Your task to perform on an android device: choose inbox layout in the gmail app Image 0: 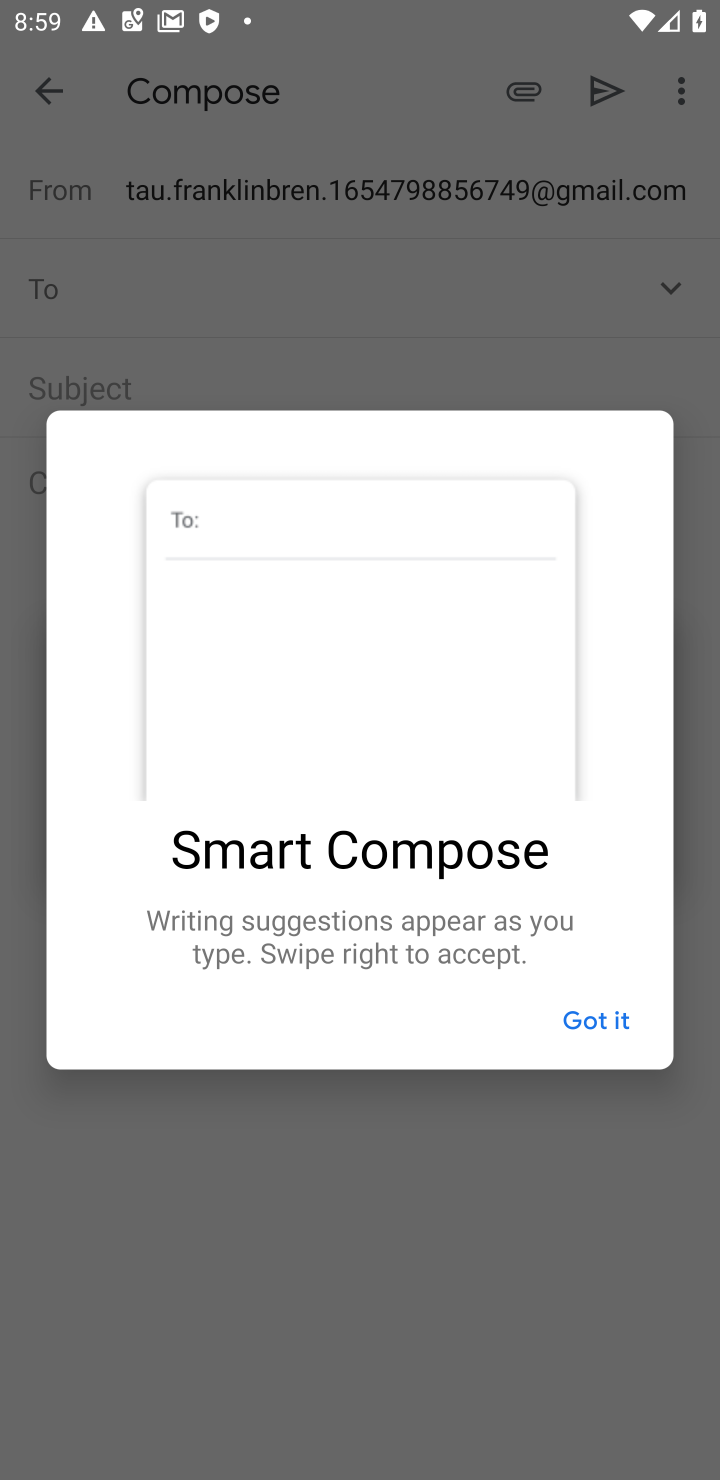
Step 0: press home button
Your task to perform on an android device: choose inbox layout in the gmail app Image 1: 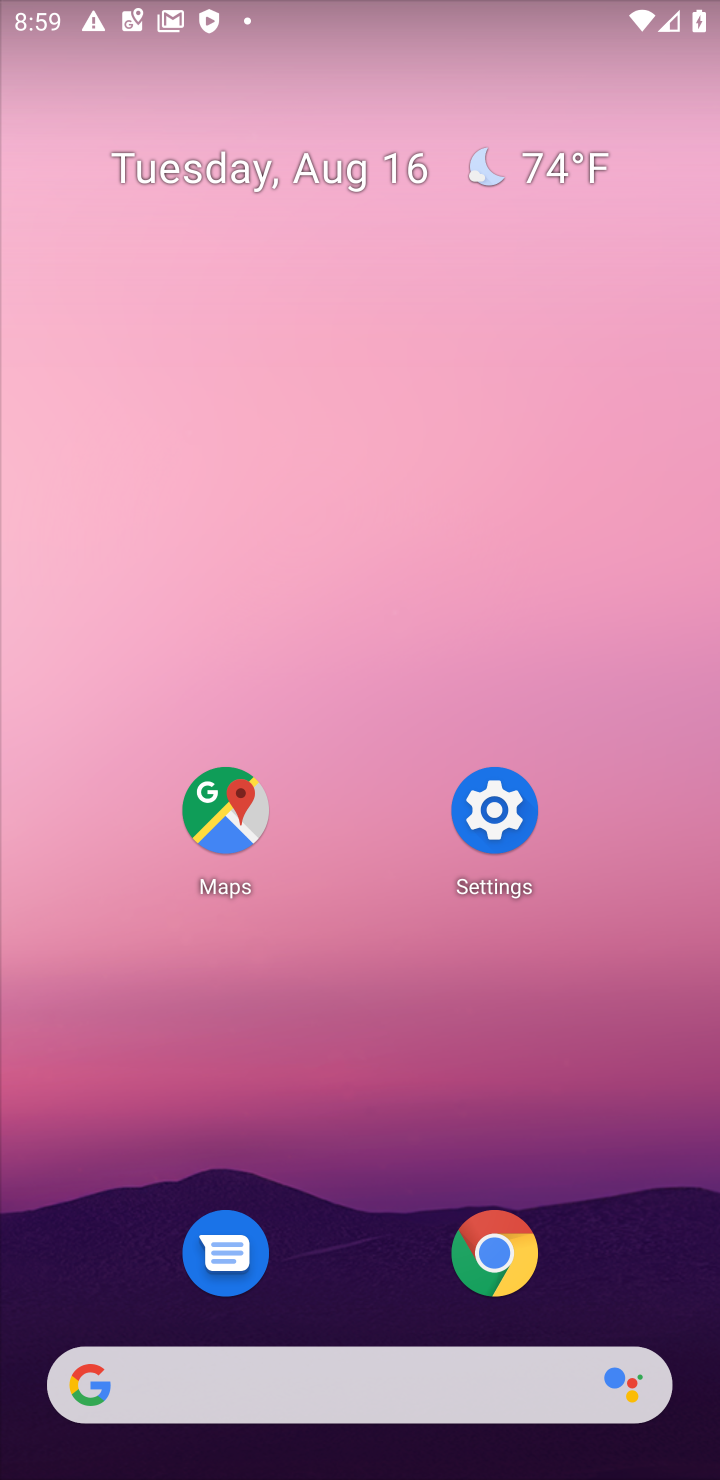
Step 1: drag from (398, 1253) to (576, 301)
Your task to perform on an android device: choose inbox layout in the gmail app Image 2: 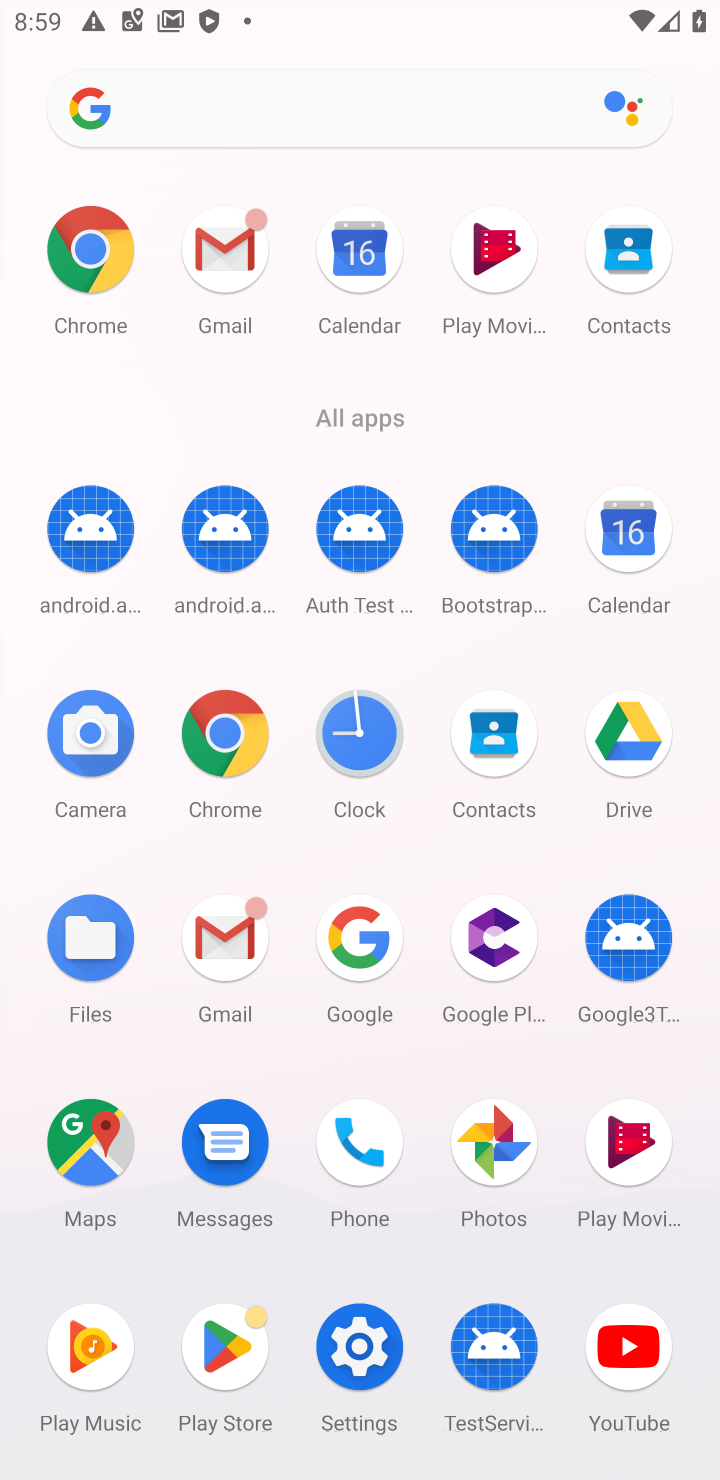
Step 2: click (216, 255)
Your task to perform on an android device: choose inbox layout in the gmail app Image 3: 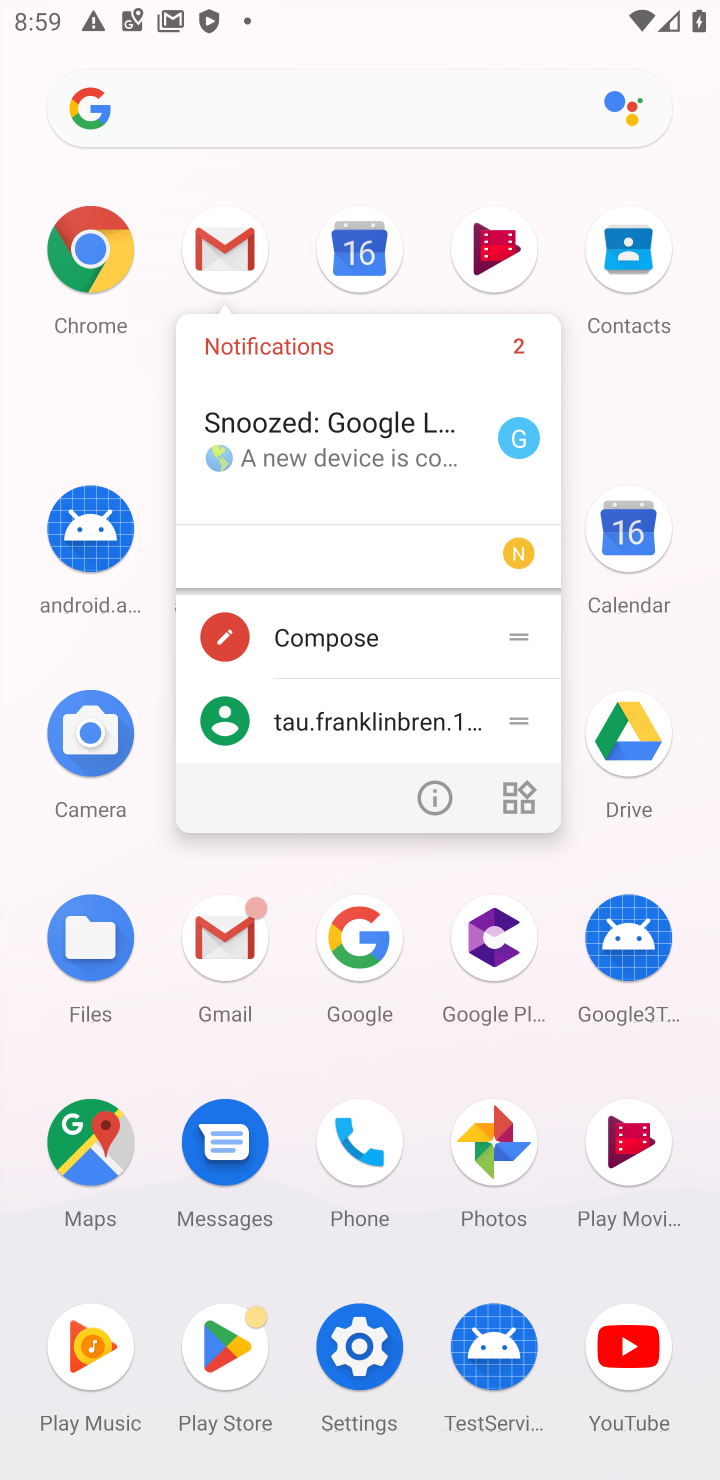
Step 3: click (216, 255)
Your task to perform on an android device: choose inbox layout in the gmail app Image 4: 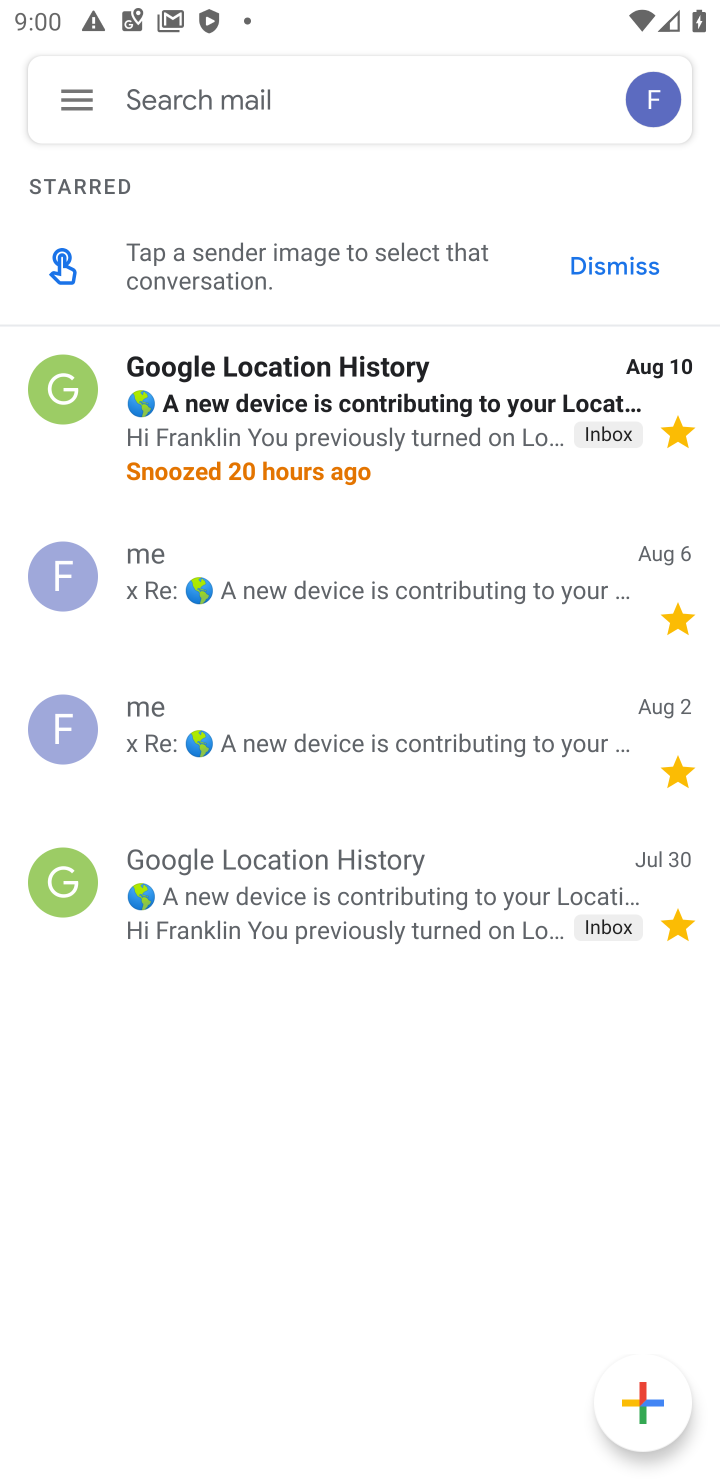
Step 4: click (80, 83)
Your task to perform on an android device: choose inbox layout in the gmail app Image 5: 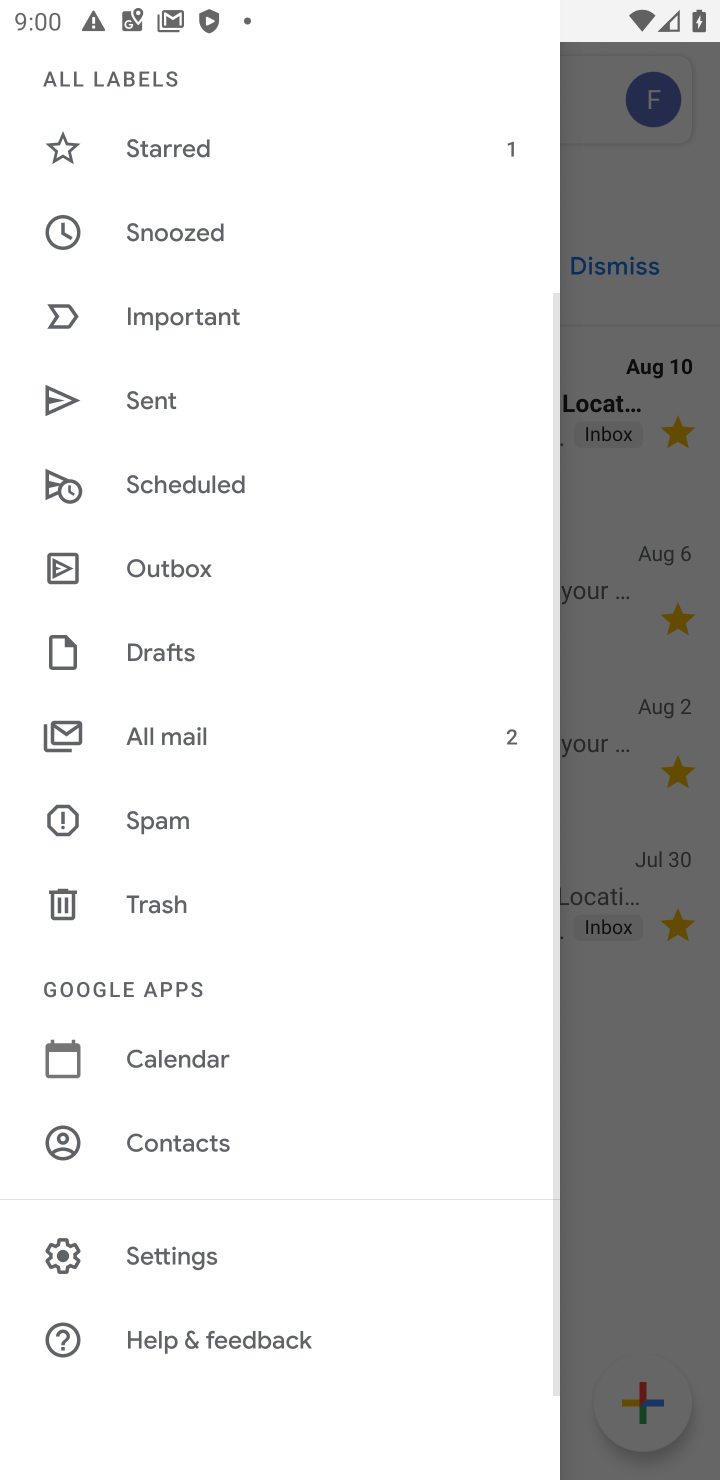
Step 5: click (220, 1260)
Your task to perform on an android device: choose inbox layout in the gmail app Image 6: 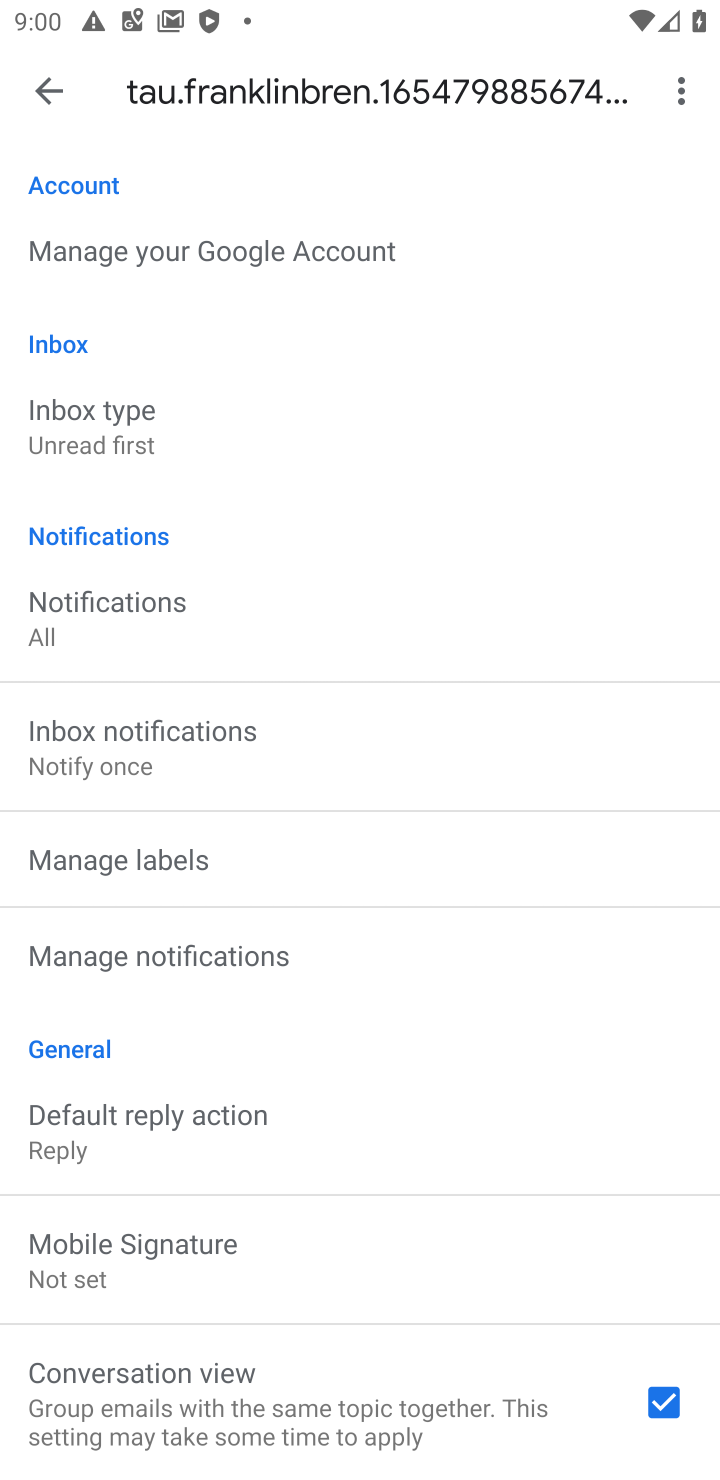
Step 6: click (129, 436)
Your task to perform on an android device: choose inbox layout in the gmail app Image 7: 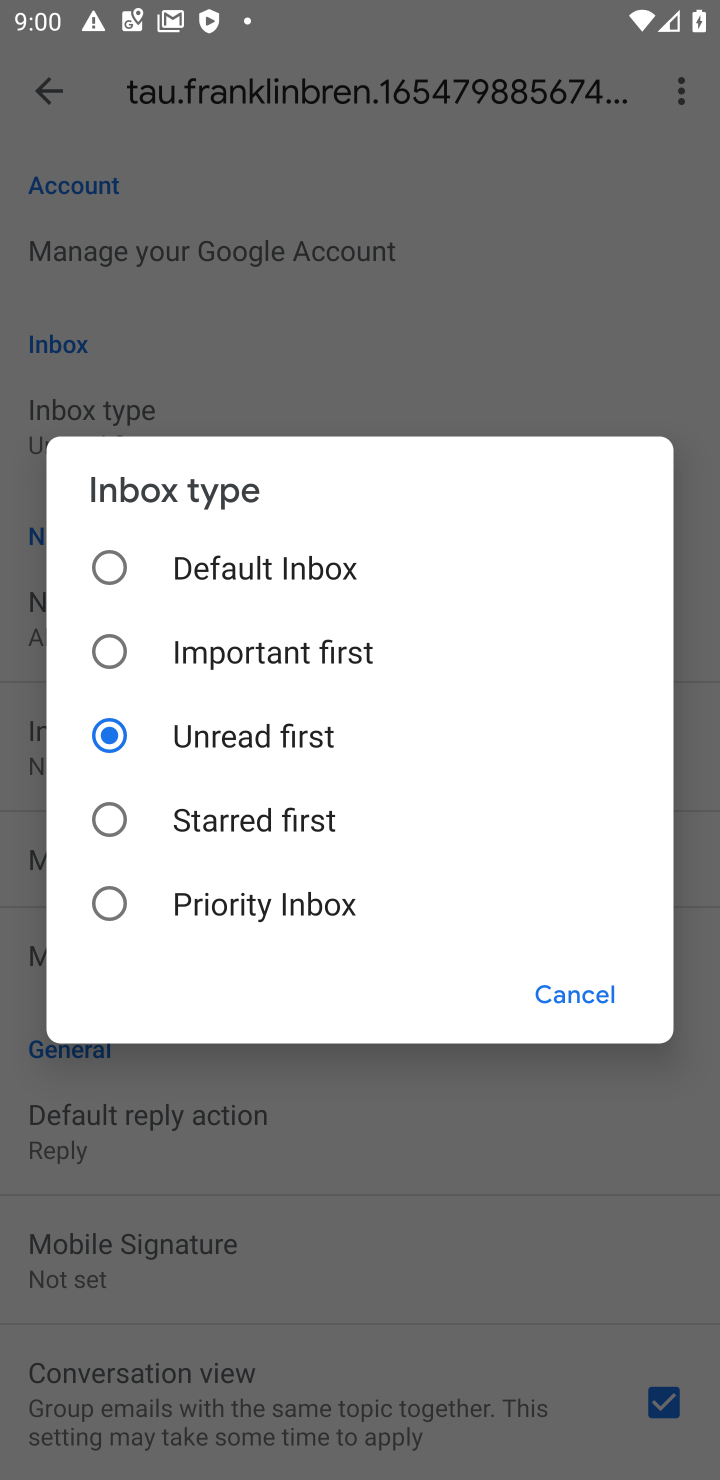
Step 7: click (111, 556)
Your task to perform on an android device: choose inbox layout in the gmail app Image 8: 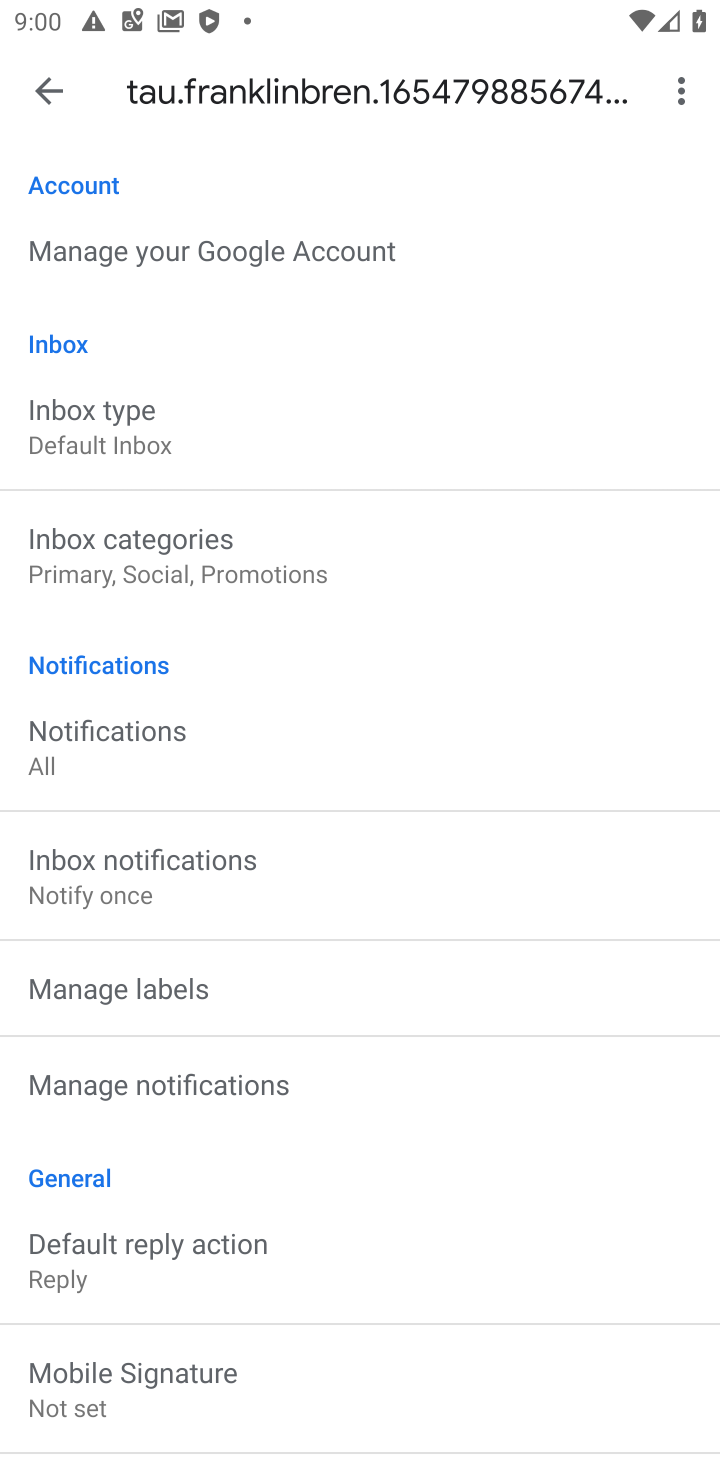
Step 8: task complete